Your task to perform on an android device: Open the stopwatch Image 0: 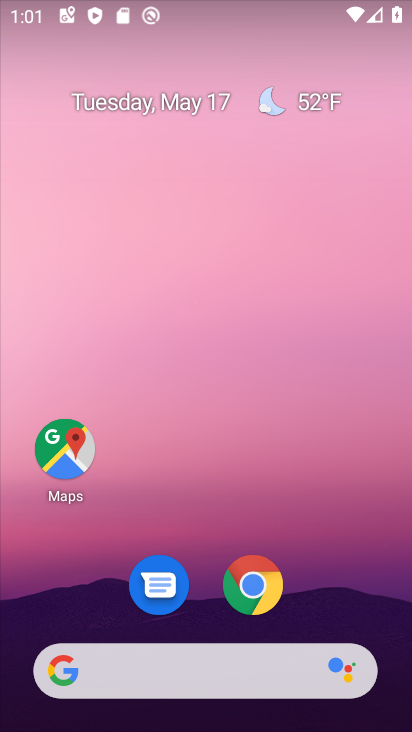
Step 0: drag from (304, 446) to (256, 37)
Your task to perform on an android device: Open the stopwatch Image 1: 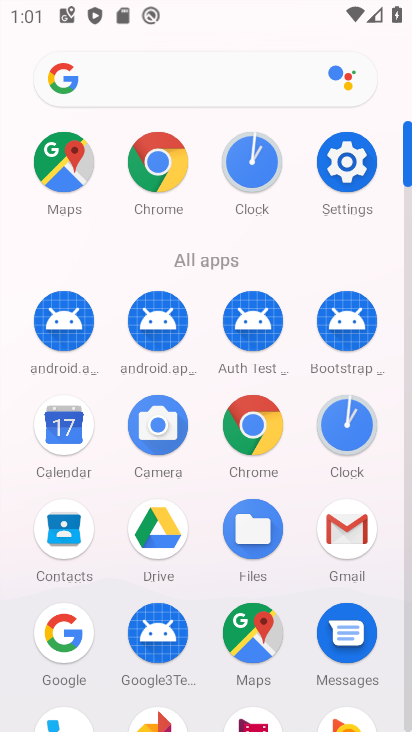
Step 1: click (272, 159)
Your task to perform on an android device: Open the stopwatch Image 2: 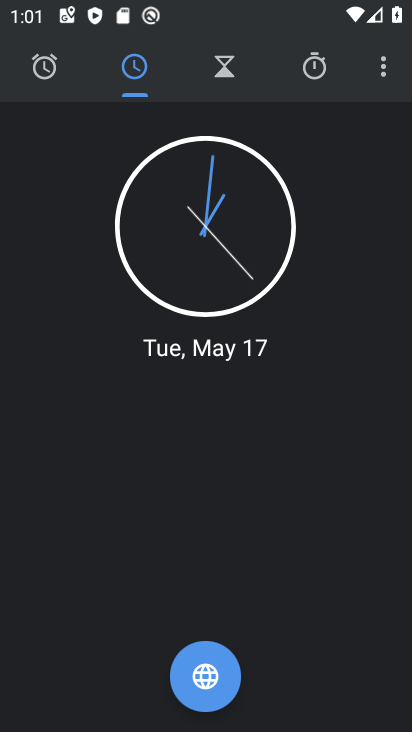
Step 2: click (307, 57)
Your task to perform on an android device: Open the stopwatch Image 3: 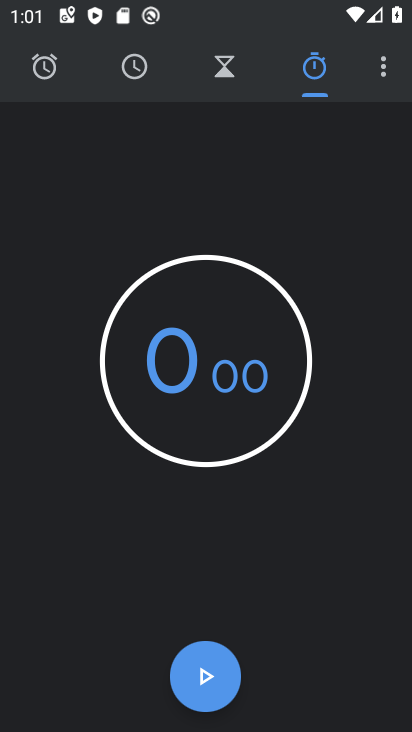
Step 3: task complete